Your task to perform on an android device: Go to sound settings Image 0: 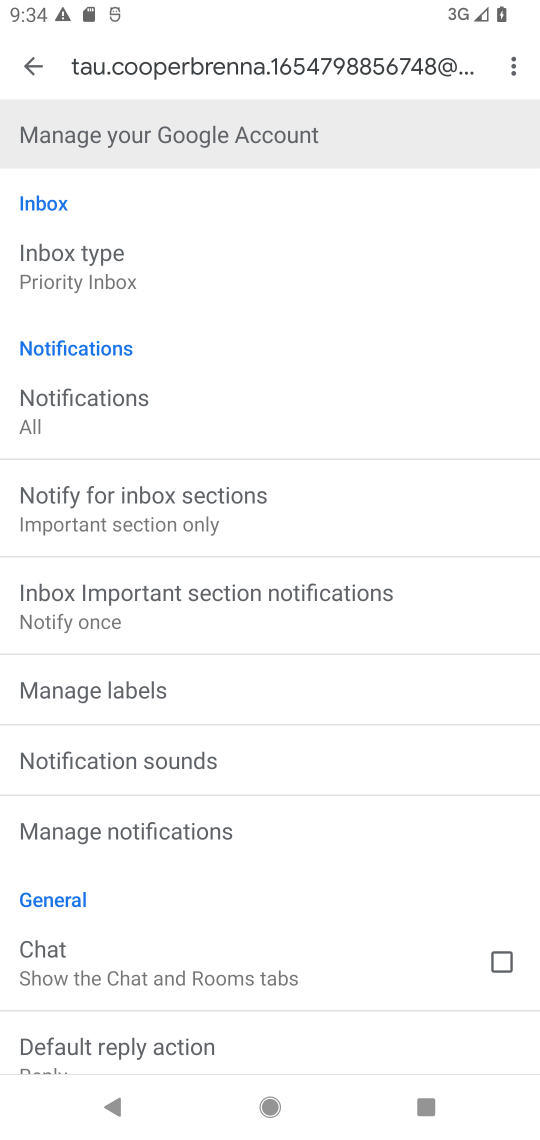
Step 0: press home button
Your task to perform on an android device: Go to sound settings Image 1: 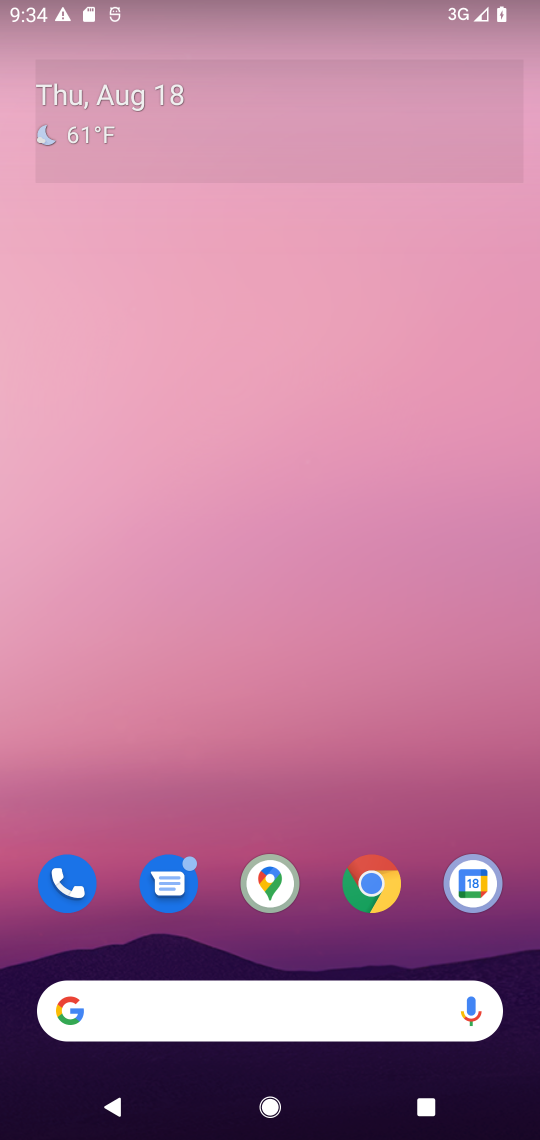
Step 1: task complete